Your task to perform on an android device: Check the news Image 0: 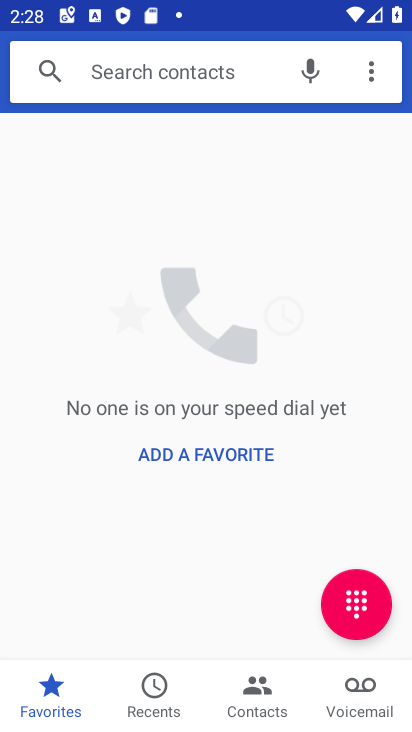
Step 0: press home button
Your task to perform on an android device: Check the news Image 1: 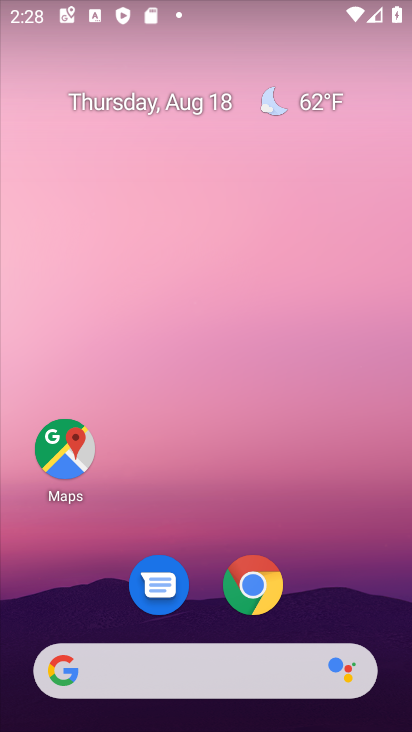
Step 1: click (201, 680)
Your task to perform on an android device: Check the news Image 2: 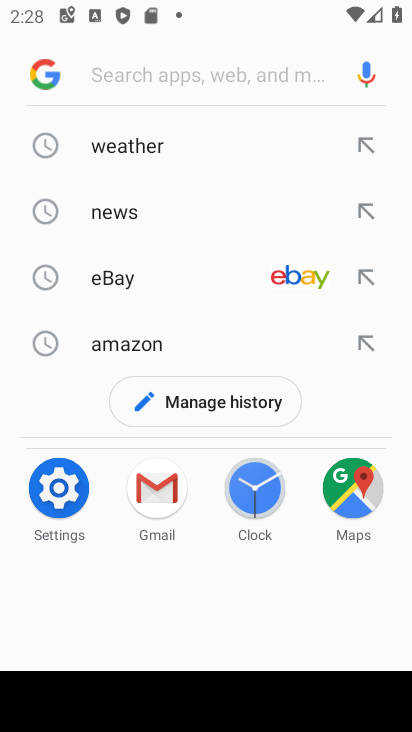
Step 2: click (124, 206)
Your task to perform on an android device: Check the news Image 3: 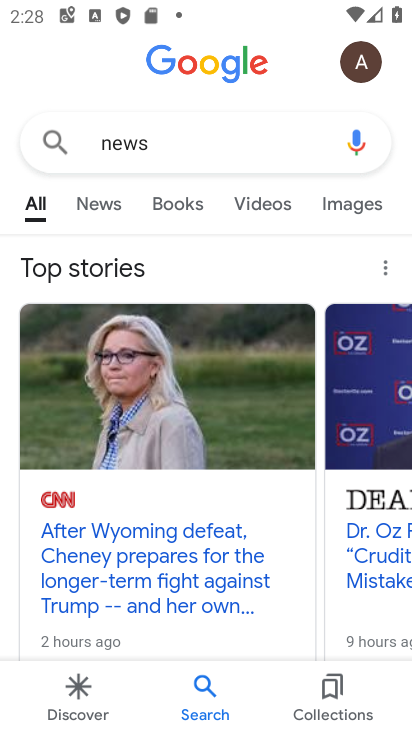
Step 3: task complete